Your task to perform on an android device: Open settings Image 0: 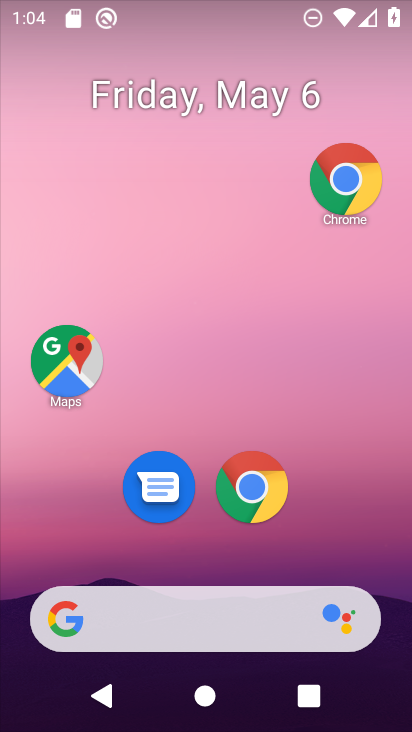
Step 0: drag from (374, 525) to (236, 116)
Your task to perform on an android device: Open settings Image 1: 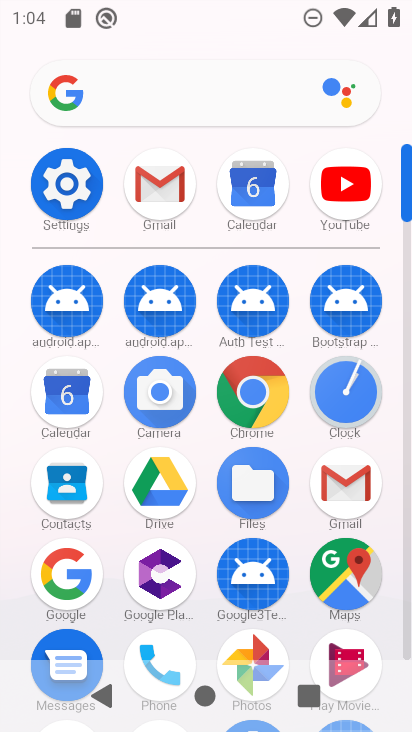
Step 1: click (68, 188)
Your task to perform on an android device: Open settings Image 2: 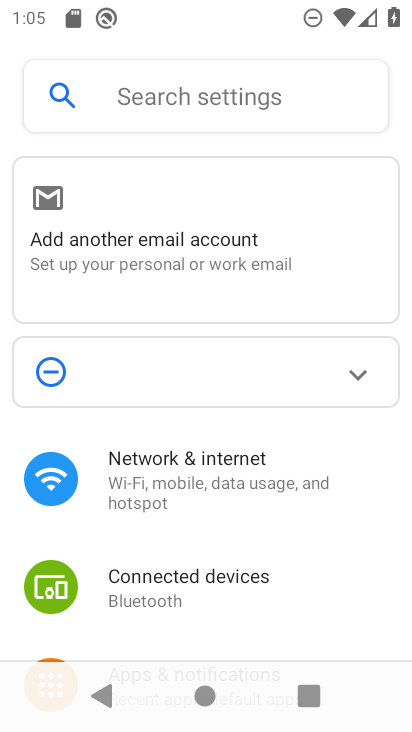
Step 2: task complete